Your task to perform on an android device: Search for sushi restaurants on Maps Image 0: 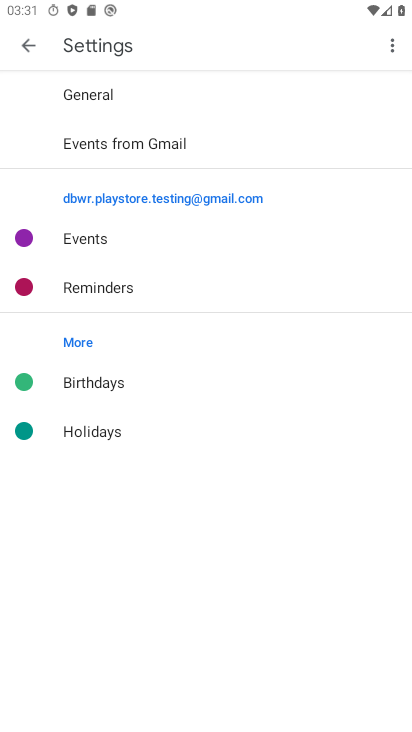
Step 0: press home button
Your task to perform on an android device: Search for sushi restaurants on Maps Image 1: 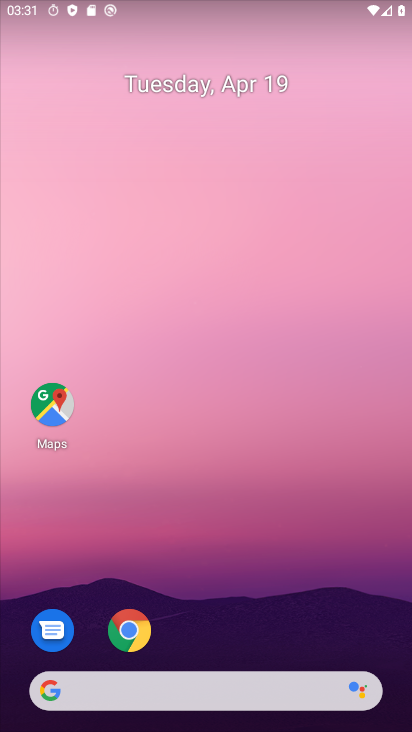
Step 1: click (51, 407)
Your task to perform on an android device: Search for sushi restaurants on Maps Image 2: 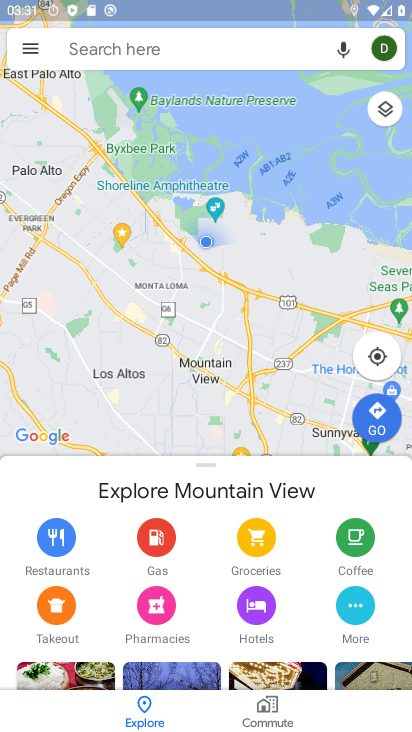
Step 2: click (155, 50)
Your task to perform on an android device: Search for sushi restaurants on Maps Image 3: 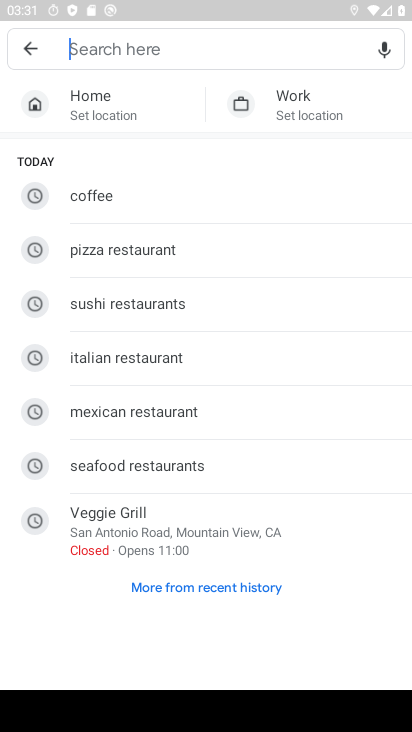
Step 3: type "sushi restaurants"
Your task to perform on an android device: Search for sushi restaurants on Maps Image 4: 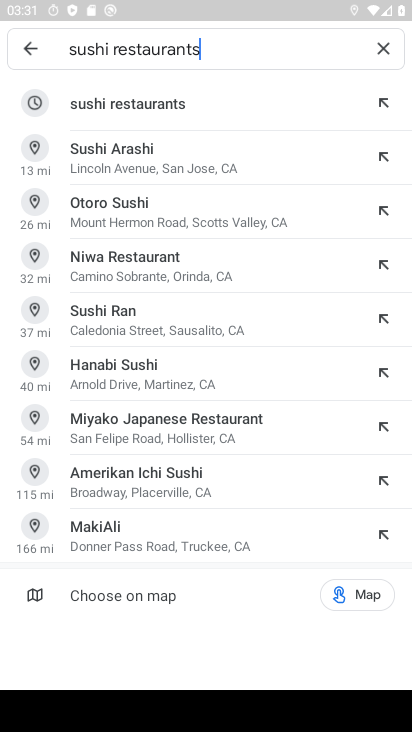
Step 4: click (184, 101)
Your task to perform on an android device: Search for sushi restaurants on Maps Image 5: 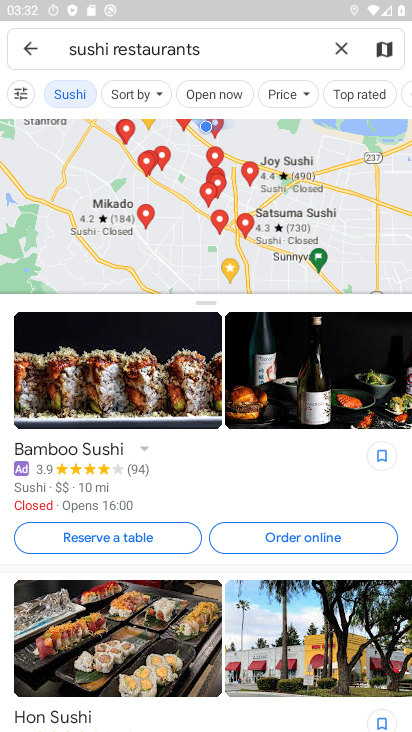
Step 5: task complete